Your task to perform on an android device: toggle translation in the chrome app Image 0: 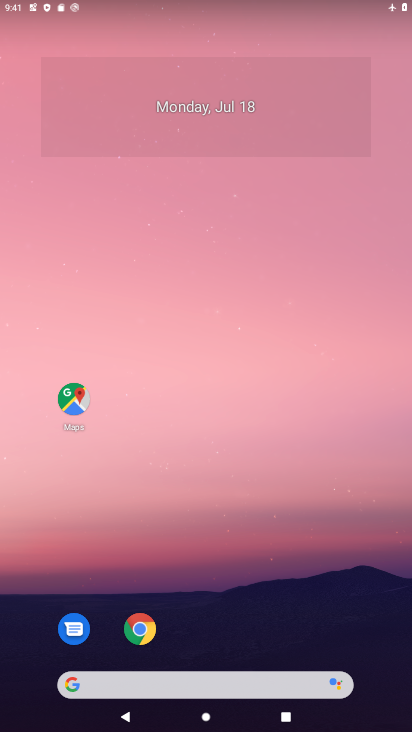
Step 0: drag from (314, 643) to (225, 180)
Your task to perform on an android device: toggle translation in the chrome app Image 1: 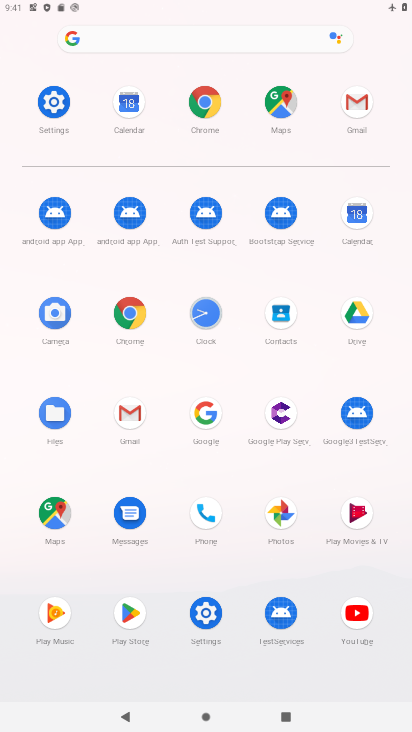
Step 1: click (131, 319)
Your task to perform on an android device: toggle translation in the chrome app Image 2: 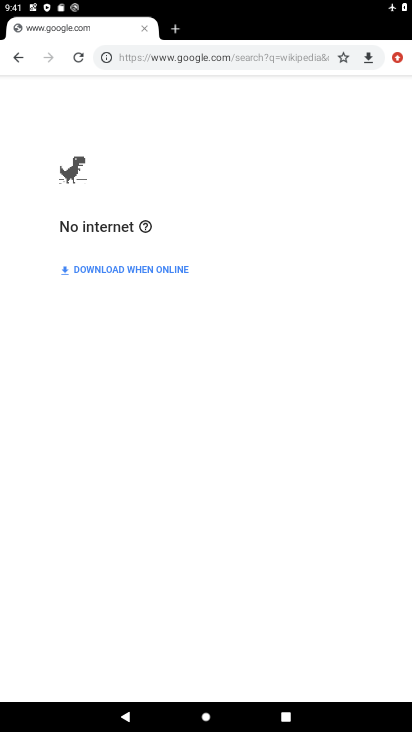
Step 2: drag from (406, 53) to (283, 391)
Your task to perform on an android device: toggle translation in the chrome app Image 3: 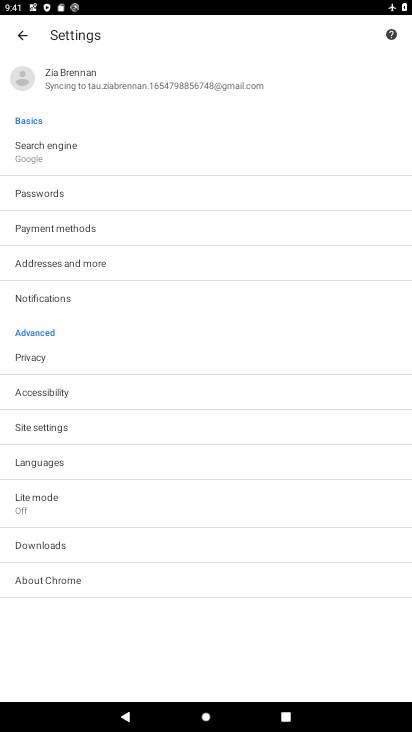
Step 3: click (45, 465)
Your task to perform on an android device: toggle translation in the chrome app Image 4: 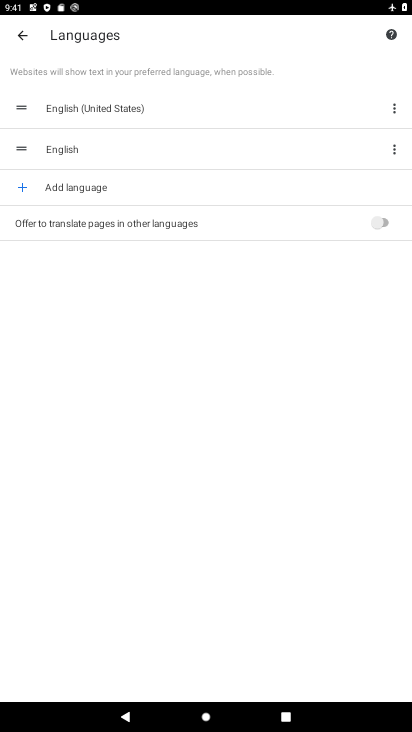
Step 4: click (386, 228)
Your task to perform on an android device: toggle translation in the chrome app Image 5: 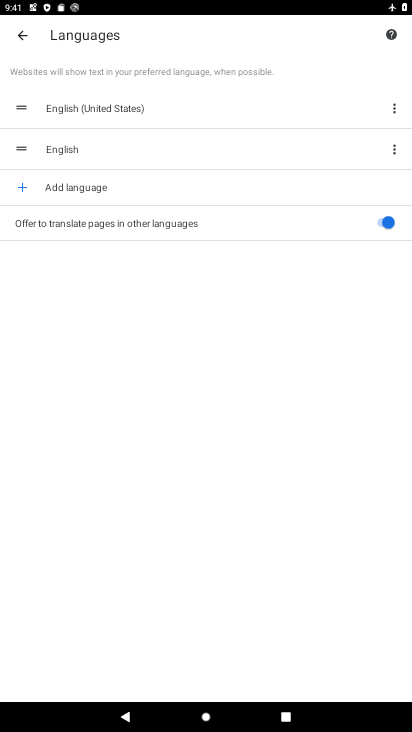
Step 5: task complete